Your task to perform on an android device: toggle show notifications on the lock screen Image 0: 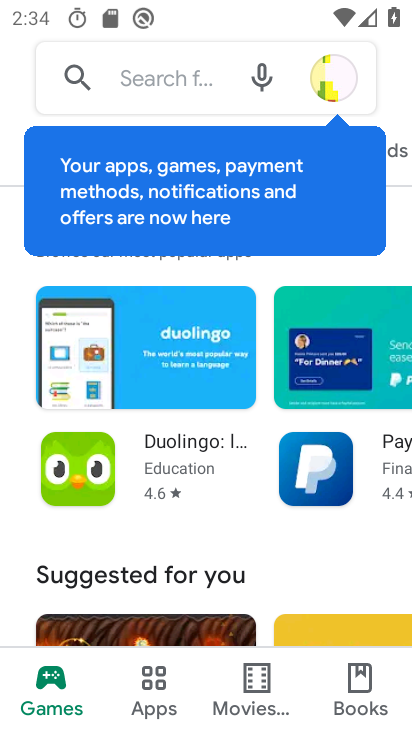
Step 0: press home button
Your task to perform on an android device: toggle show notifications on the lock screen Image 1: 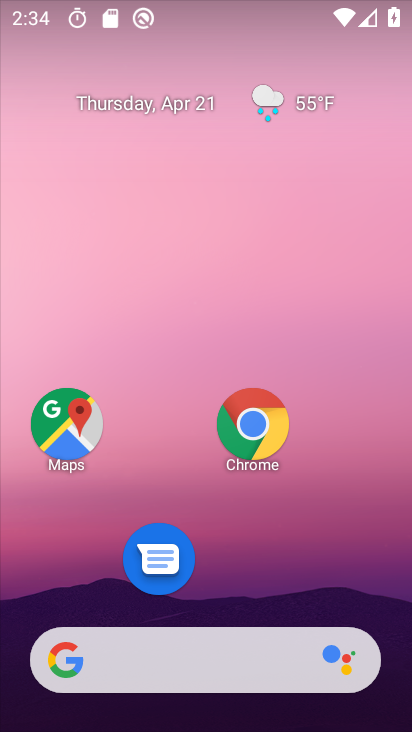
Step 1: drag from (245, 348) to (247, 89)
Your task to perform on an android device: toggle show notifications on the lock screen Image 2: 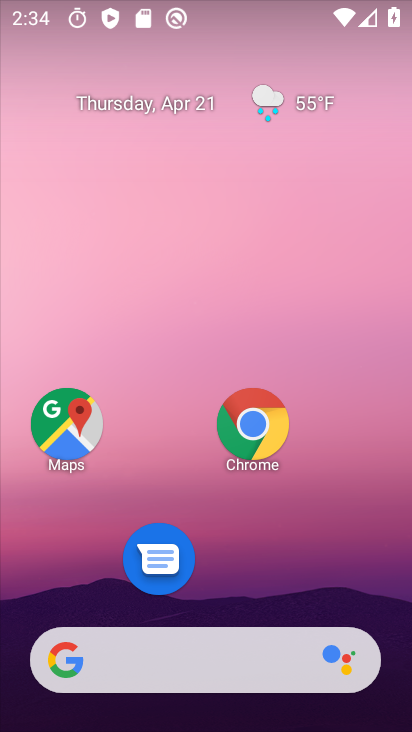
Step 2: drag from (220, 488) to (225, 72)
Your task to perform on an android device: toggle show notifications on the lock screen Image 3: 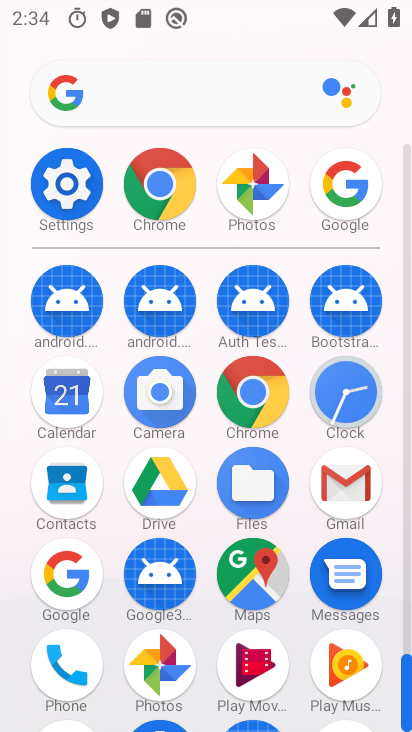
Step 3: click (70, 172)
Your task to perform on an android device: toggle show notifications on the lock screen Image 4: 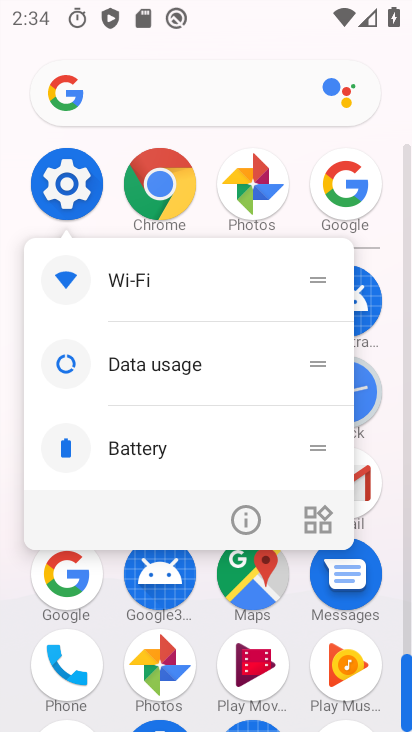
Step 4: click (70, 172)
Your task to perform on an android device: toggle show notifications on the lock screen Image 5: 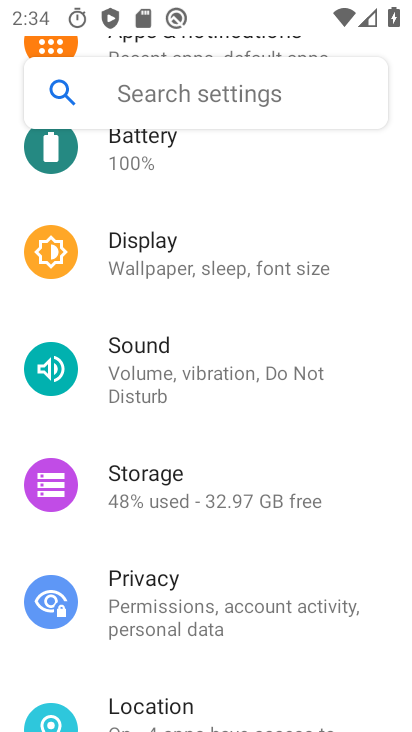
Step 5: drag from (253, 529) to (230, 647)
Your task to perform on an android device: toggle show notifications on the lock screen Image 6: 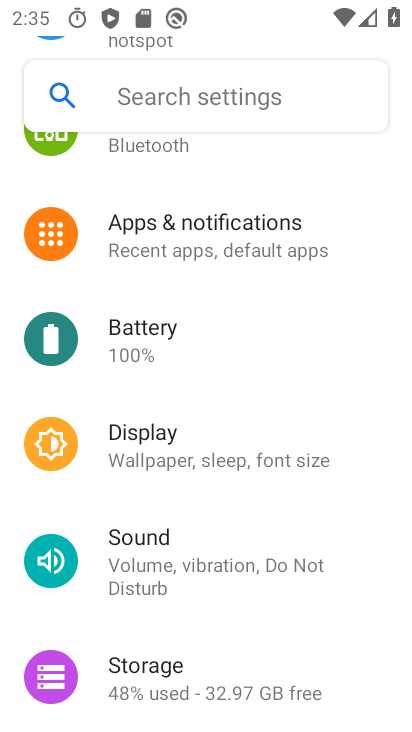
Step 6: drag from (207, 595) to (211, 686)
Your task to perform on an android device: toggle show notifications on the lock screen Image 7: 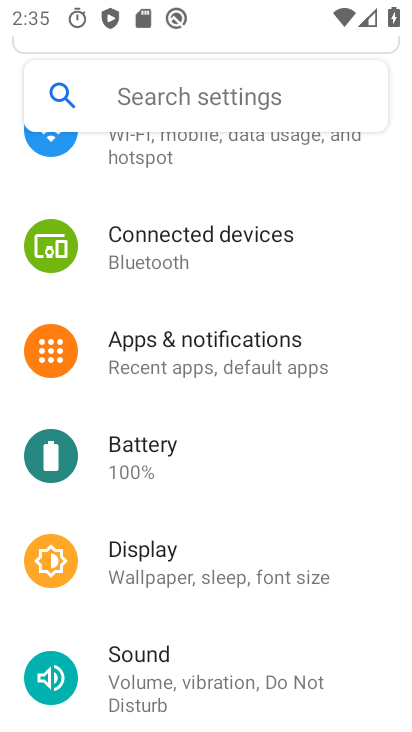
Step 7: click (172, 357)
Your task to perform on an android device: toggle show notifications on the lock screen Image 8: 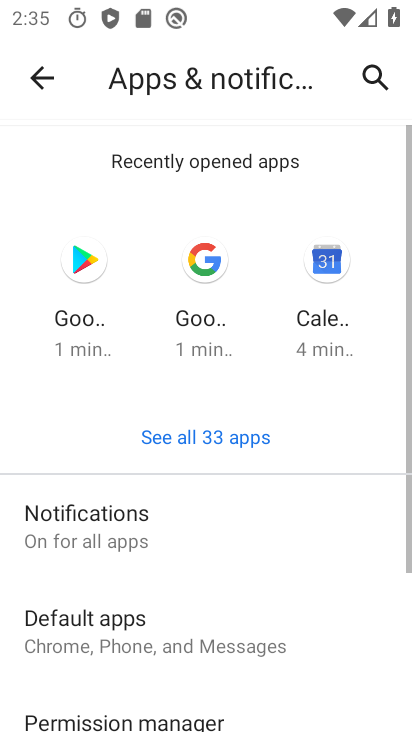
Step 8: click (127, 507)
Your task to perform on an android device: toggle show notifications on the lock screen Image 9: 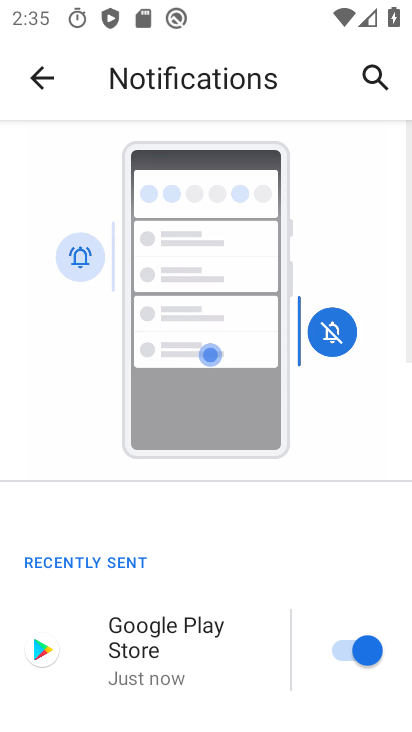
Step 9: drag from (195, 456) to (169, 165)
Your task to perform on an android device: toggle show notifications on the lock screen Image 10: 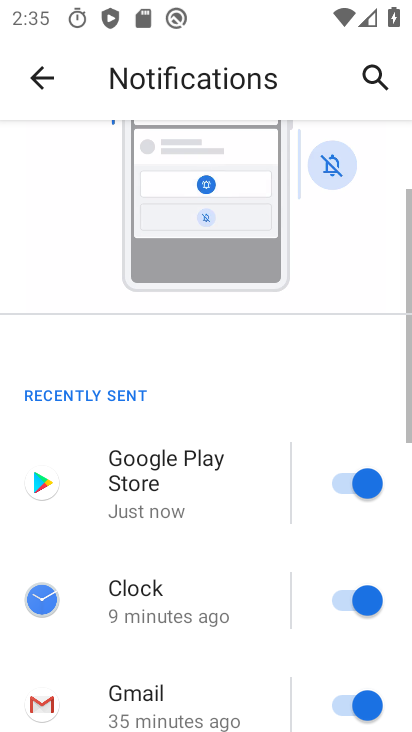
Step 10: drag from (187, 650) to (192, 160)
Your task to perform on an android device: toggle show notifications on the lock screen Image 11: 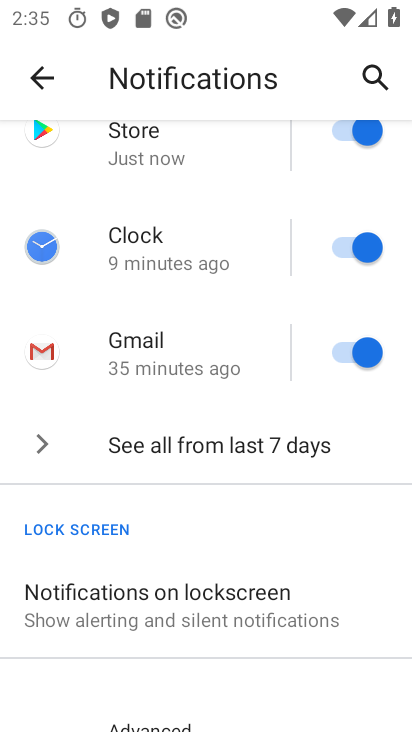
Step 11: click (157, 603)
Your task to perform on an android device: toggle show notifications on the lock screen Image 12: 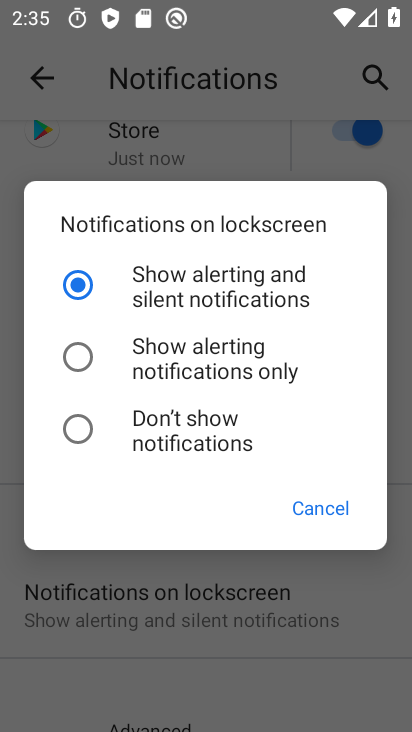
Step 12: click (77, 429)
Your task to perform on an android device: toggle show notifications on the lock screen Image 13: 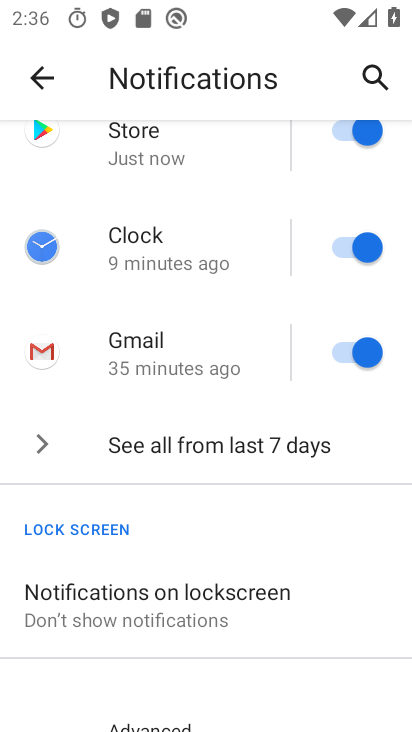
Step 13: task complete